Your task to perform on an android device: Set the phone to "Do not disturb". Image 0: 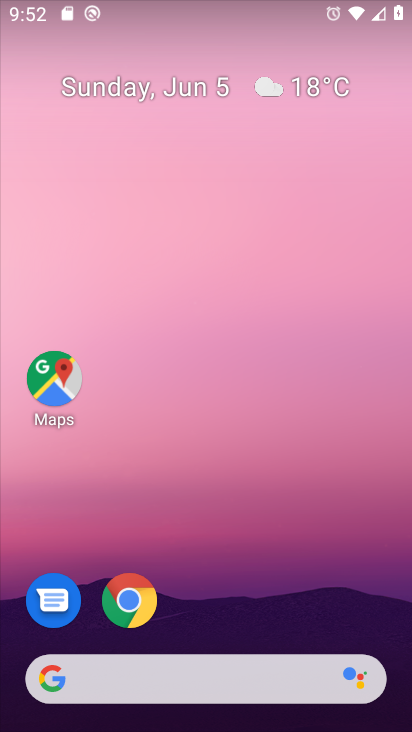
Step 0: drag from (223, 596) to (185, 51)
Your task to perform on an android device: Set the phone to "Do not disturb". Image 1: 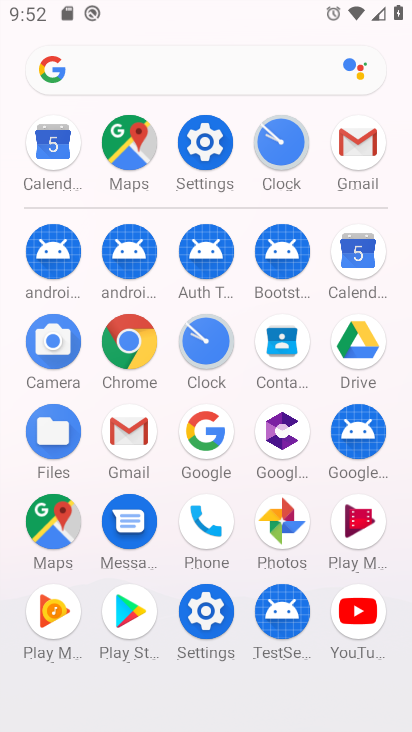
Step 1: click (191, 145)
Your task to perform on an android device: Set the phone to "Do not disturb". Image 2: 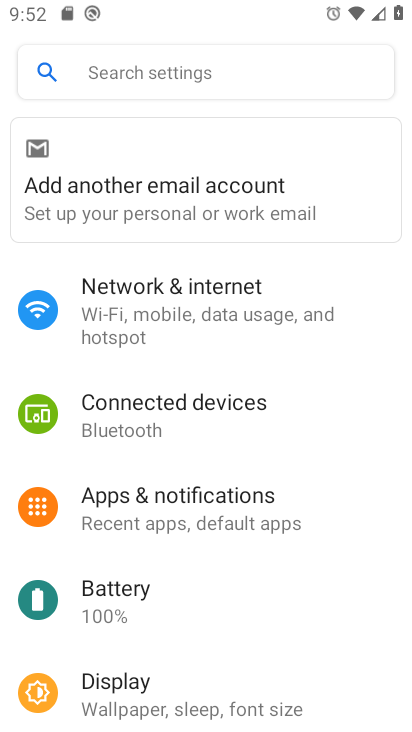
Step 2: drag from (275, 608) to (238, 201)
Your task to perform on an android device: Set the phone to "Do not disturb". Image 3: 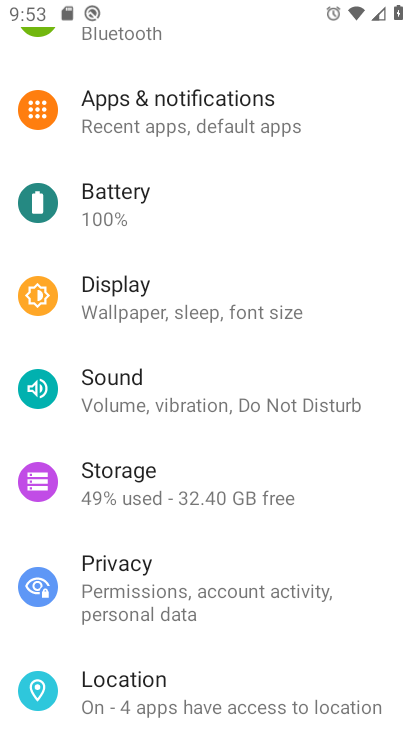
Step 3: click (288, 389)
Your task to perform on an android device: Set the phone to "Do not disturb". Image 4: 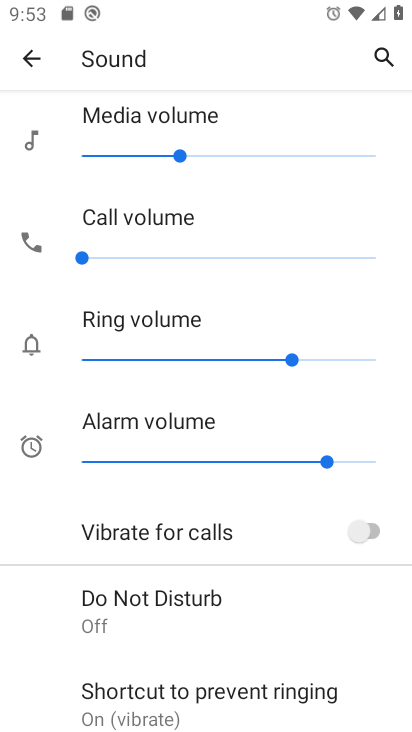
Step 4: click (202, 599)
Your task to perform on an android device: Set the phone to "Do not disturb". Image 5: 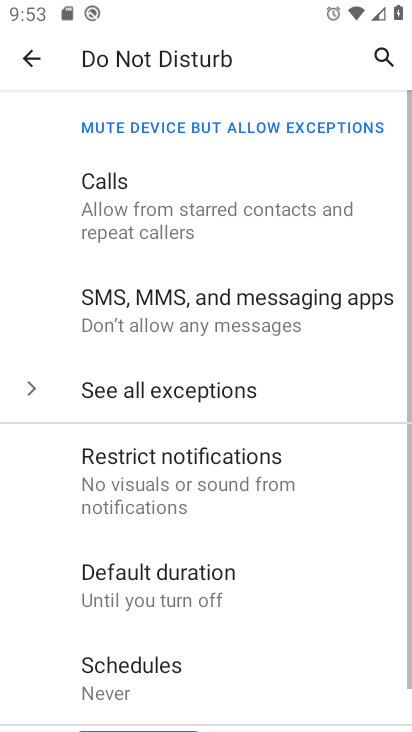
Step 5: drag from (271, 526) to (258, 219)
Your task to perform on an android device: Set the phone to "Do not disturb". Image 6: 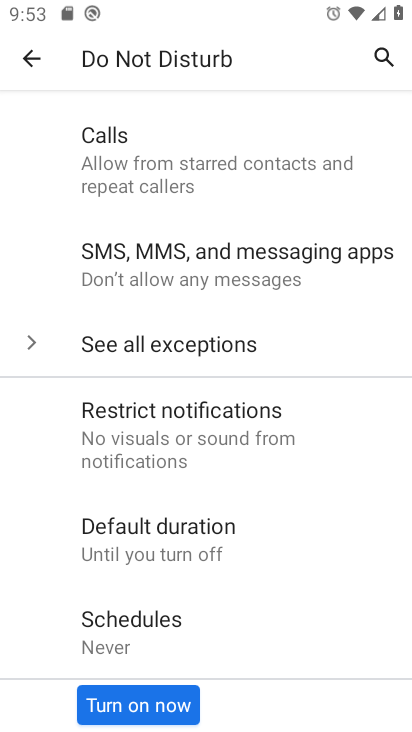
Step 6: click (184, 693)
Your task to perform on an android device: Set the phone to "Do not disturb". Image 7: 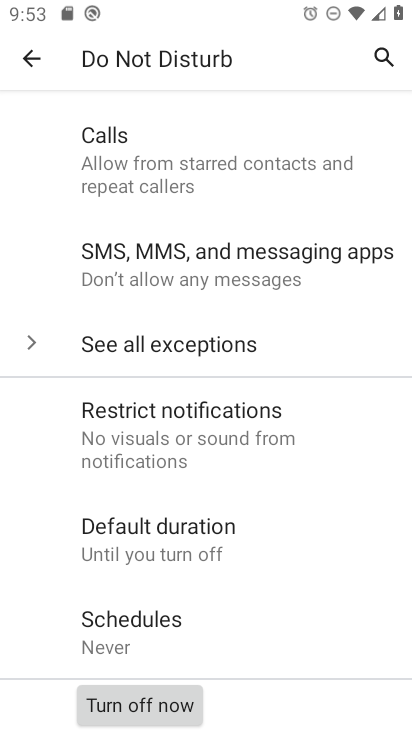
Step 7: task complete